Your task to perform on an android device: Open eBay Image 0: 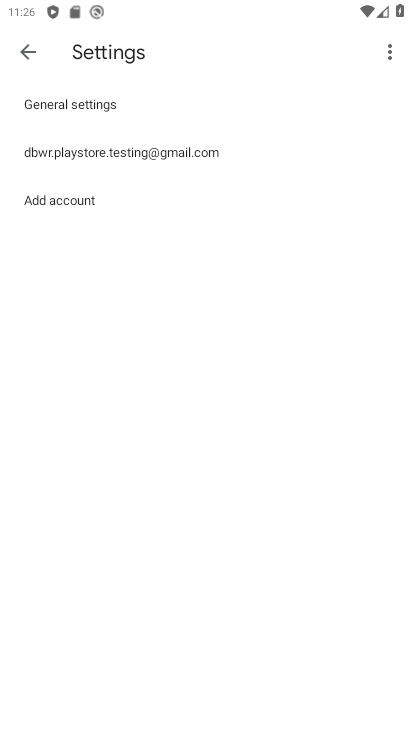
Step 0: press home button
Your task to perform on an android device: Open eBay Image 1: 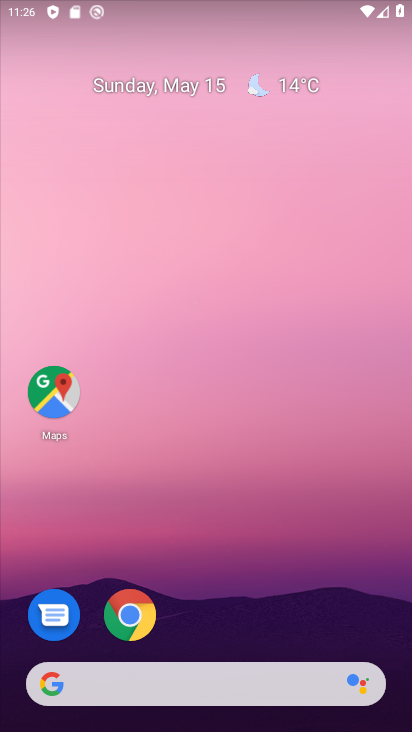
Step 1: drag from (325, 617) to (328, 121)
Your task to perform on an android device: Open eBay Image 2: 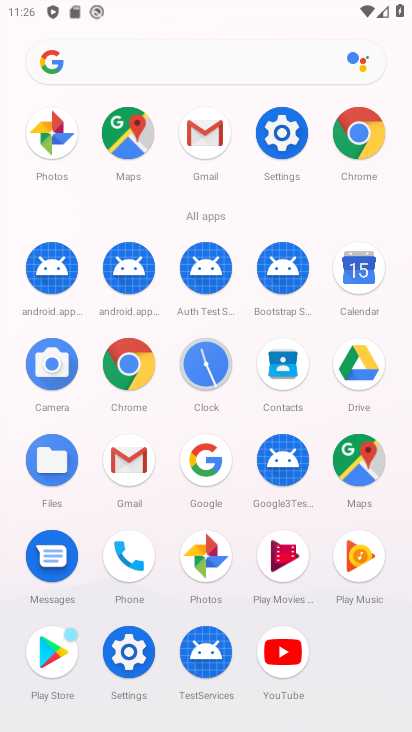
Step 2: click (367, 149)
Your task to perform on an android device: Open eBay Image 3: 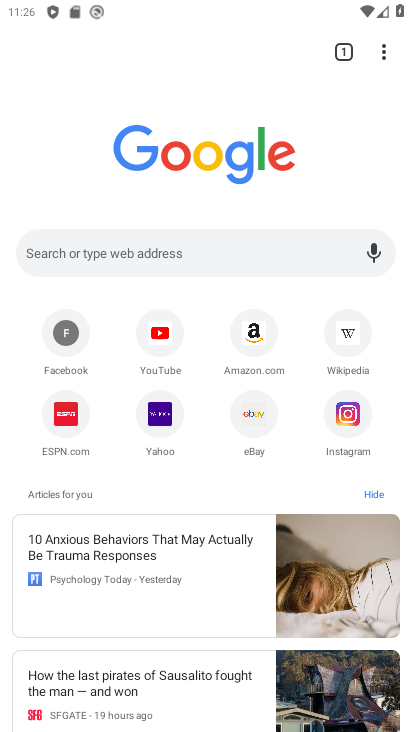
Step 3: click (254, 411)
Your task to perform on an android device: Open eBay Image 4: 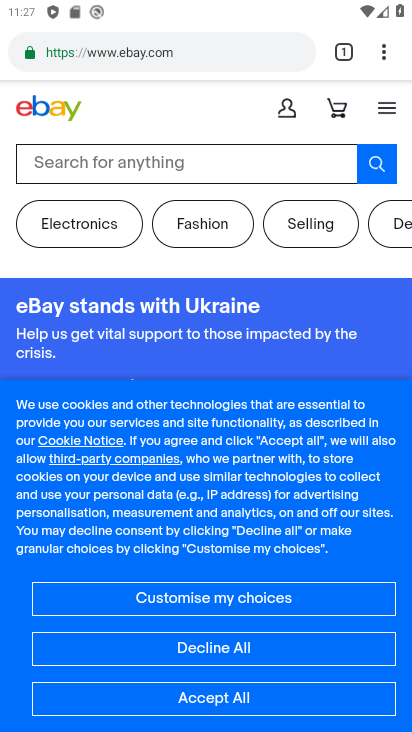
Step 4: task complete